Your task to perform on an android device: open app "Mercado Libre" (install if not already installed) and enter user name: "tolerating@yahoo.com" and password: "Kepler" Image 0: 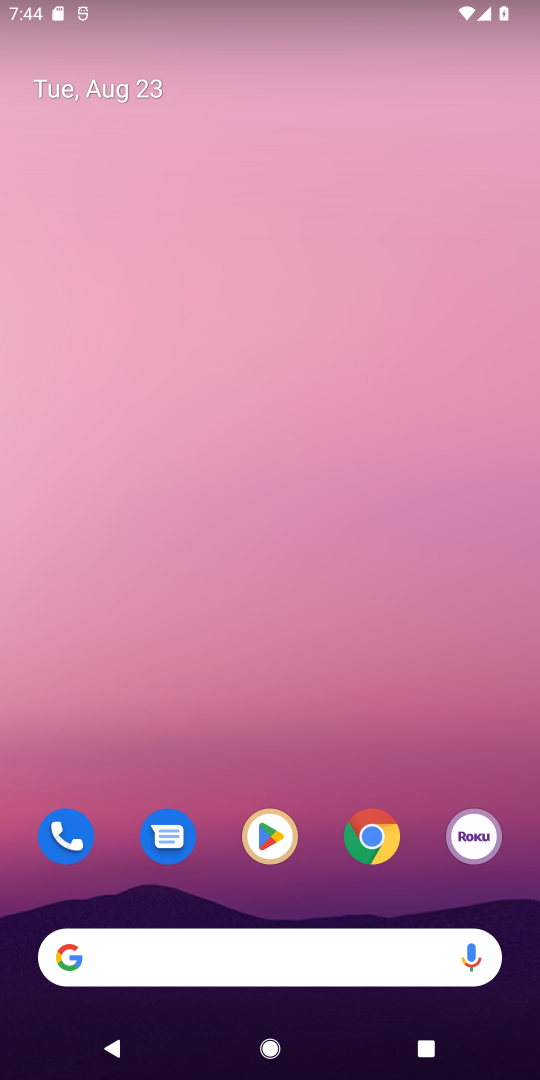
Step 0: click (275, 835)
Your task to perform on an android device: open app "Mercado Libre" (install if not already installed) and enter user name: "tolerating@yahoo.com" and password: "Kepler" Image 1: 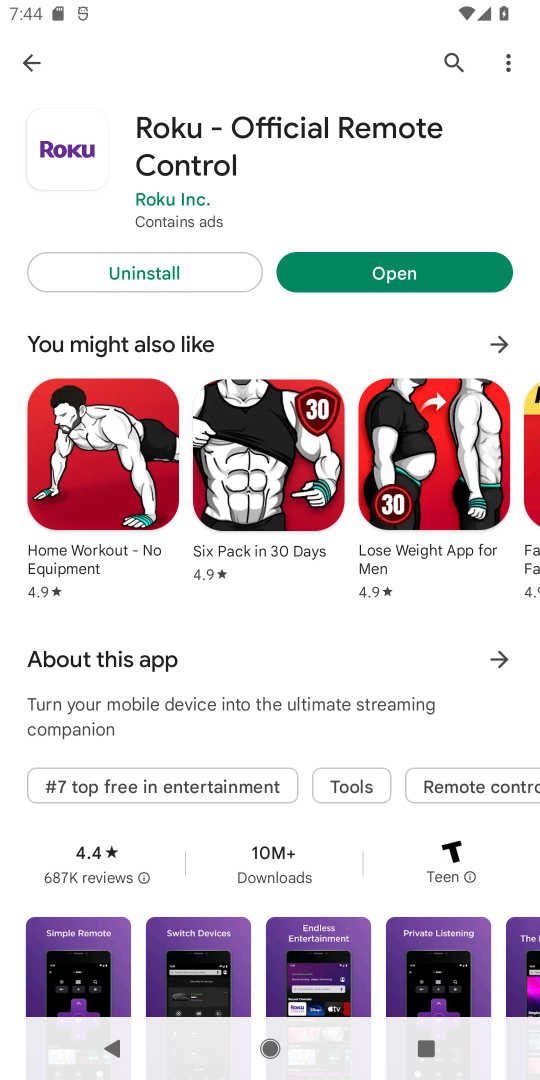
Step 1: click (445, 57)
Your task to perform on an android device: open app "Mercado Libre" (install if not already installed) and enter user name: "tolerating@yahoo.com" and password: "Kepler" Image 2: 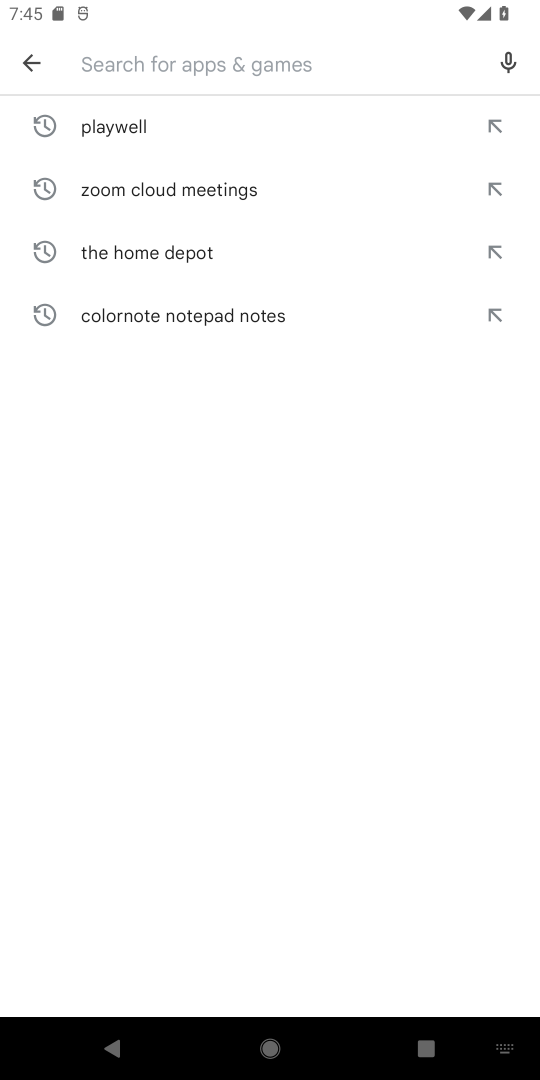
Step 2: type "Mercado Libre"
Your task to perform on an android device: open app "Mercado Libre" (install if not already installed) and enter user name: "tolerating@yahoo.com" and password: "Kepler" Image 3: 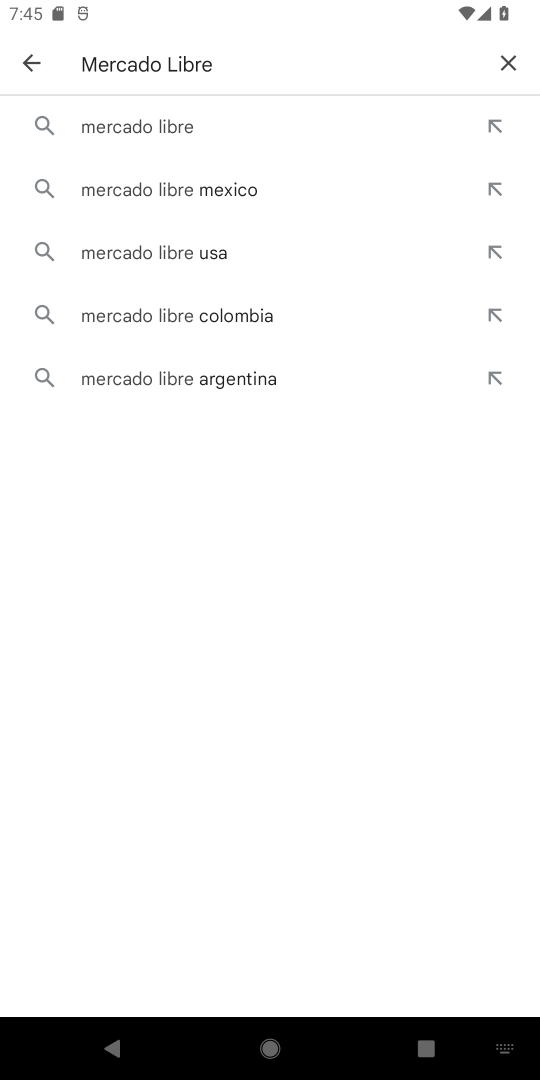
Step 3: click (153, 128)
Your task to perform on an android device: open app "Mercado Libre" (install if not already installed) and enter user name: "tolerating@yahoo.com" and password: "Kepler" Image 4: 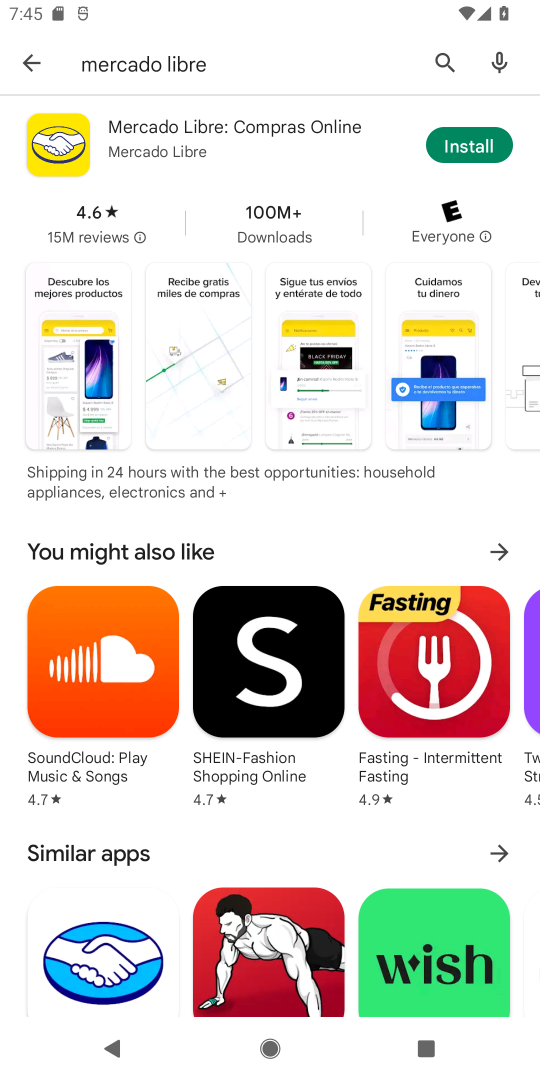
Step 4: click (470, 139)
Your task to perform on an android device: open app "Mercado Libre" (install if not already installed) and enter user name: "tolerating@yahoo.com" and password: "Kepler" Image 5: 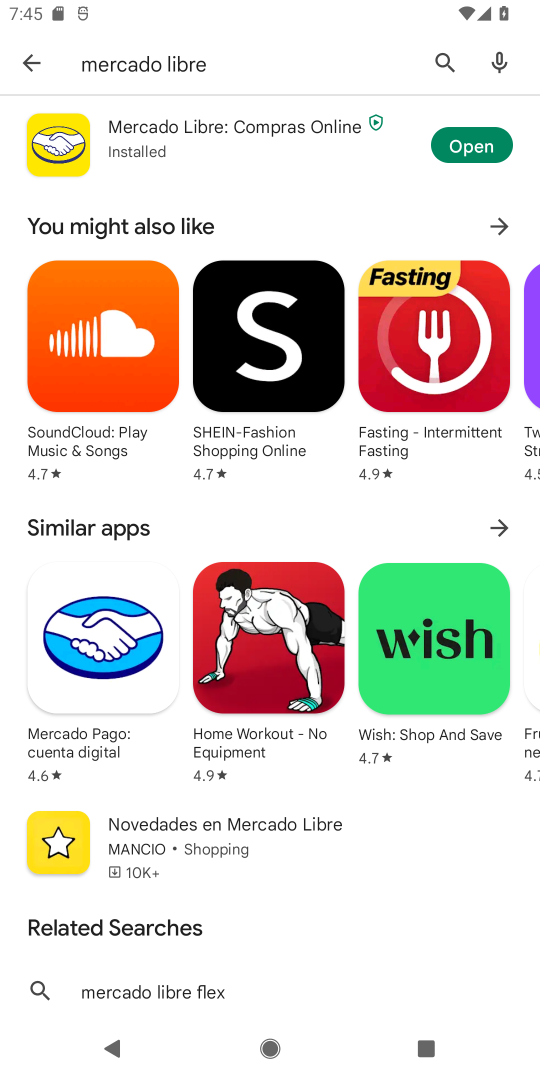
Step 5: click (460, 146)
Your task to perform on an android device: open app "Mercado Libre" (install if not already installed) and enter user name: "tolerating@yahoo.com" and password: "Kepler" Image 6: 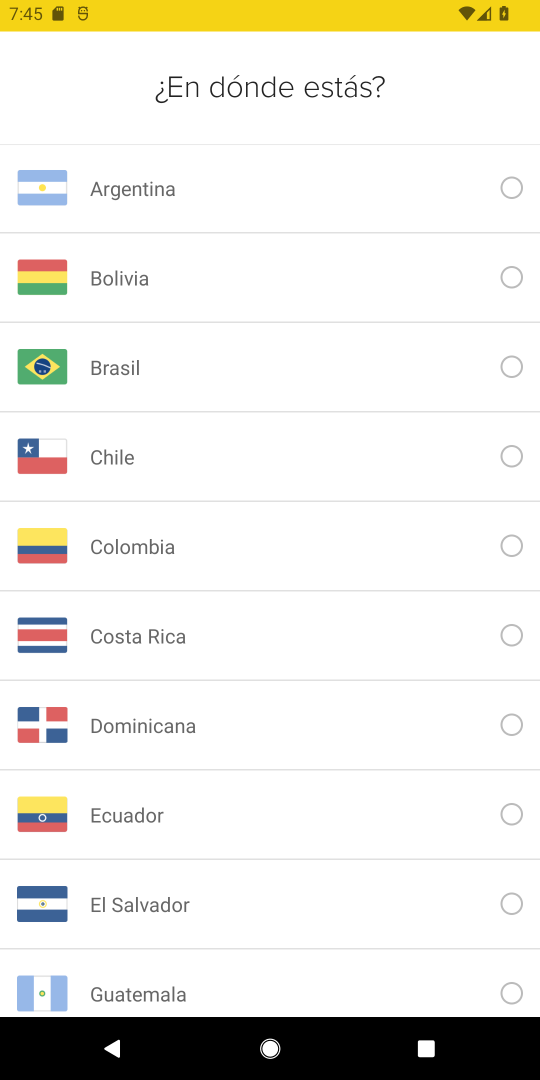
Step 6: task complete